Your task to perform on an android device: turn on notifications settings in the gmail app Image 0: 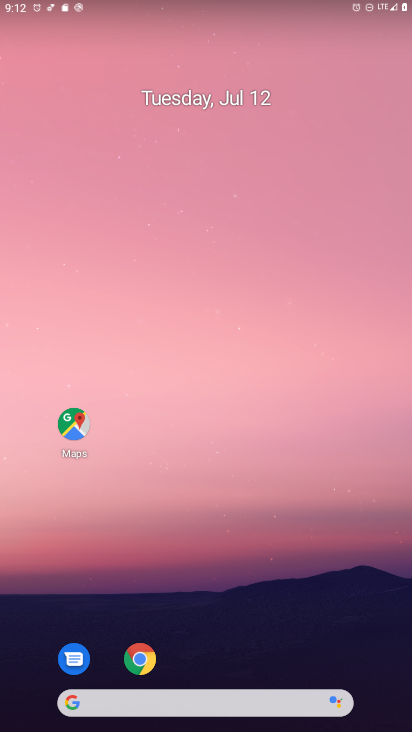
Step 0: drag from (206, 711) to (250, 209)
Your task to perform on an android device: turn on notifications settings in the gmail app Image 1: 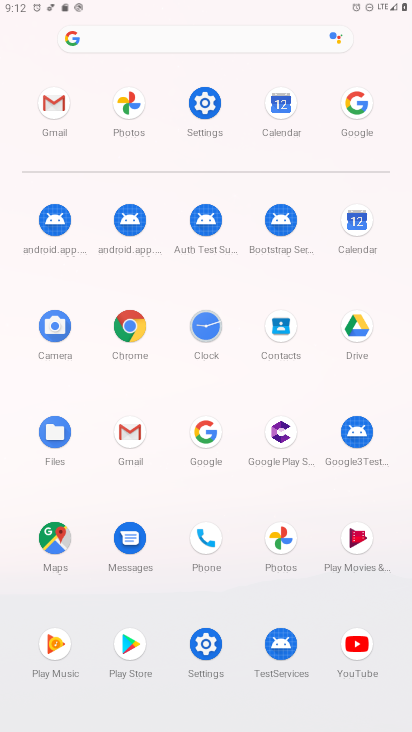
Step 1: click (54, 100)
Your task to perform on an android device: turn on notifications settings in the gmail app Image 2: 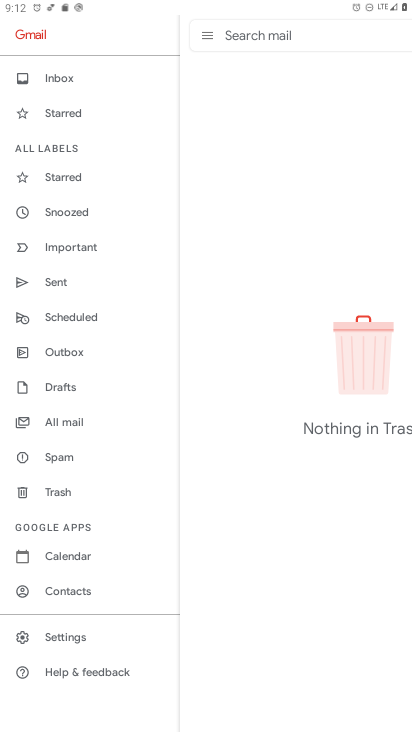
Step 2: click (64, 637)
Your task to perform on an android device: turn on notifications settings in the gmail app Image 3: 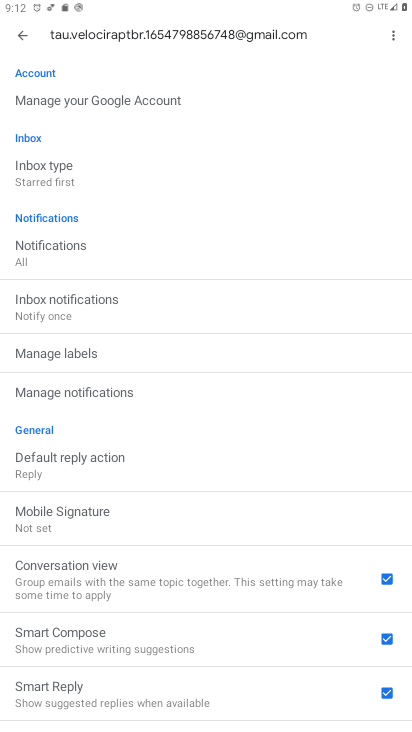
Step 3: click (95, 394)
Your task to perform on an android device: turn on notifications settings in the gmail app Image 4: 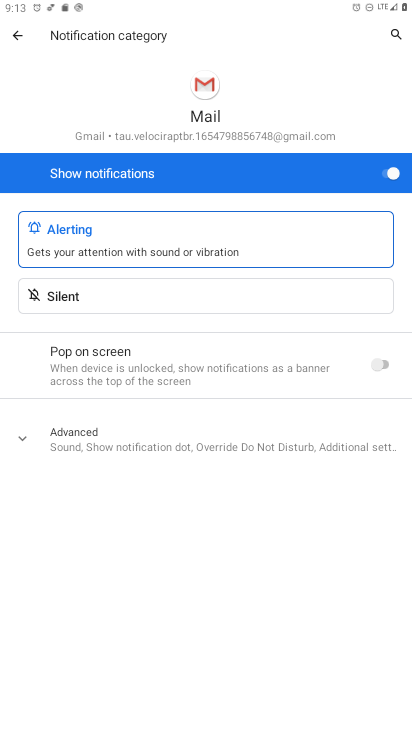
Step 4: task complete